Your task to perform on an android device: Open my contact list Image 0: 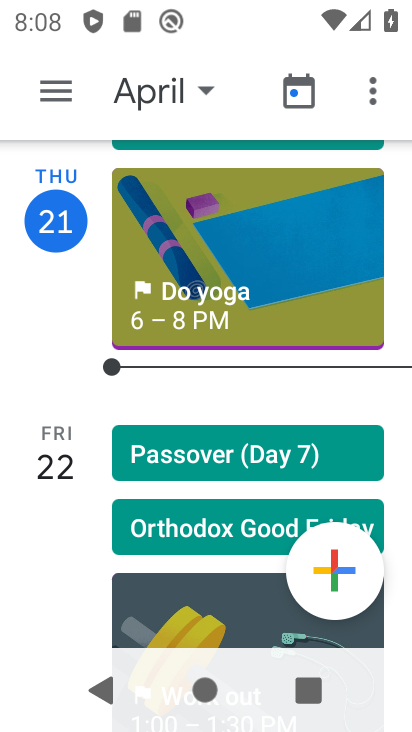
Step 0: press home button
Your task to perform on an android device: Open my contact list Image 1: 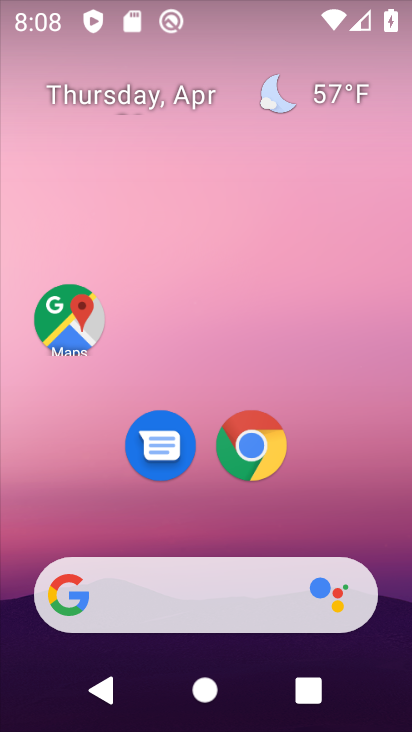
Step 1: drag from (339, 504) to (352, 18)
Your task to perform on an android device: Open my contact list Image 2: 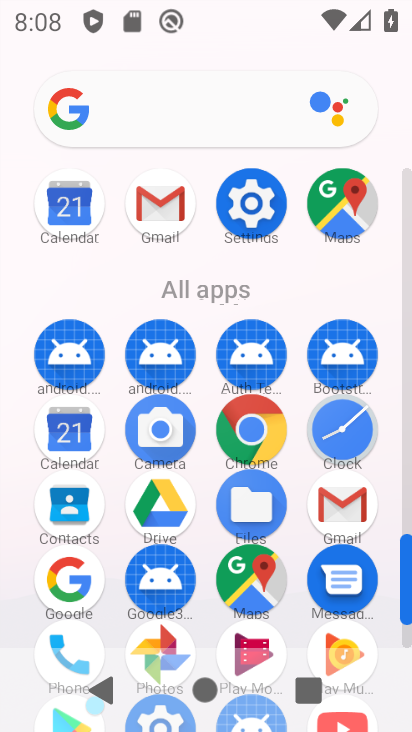
Step 2: click (67, 503)
Your task to perform on an android device: Open my contact list Image 3: 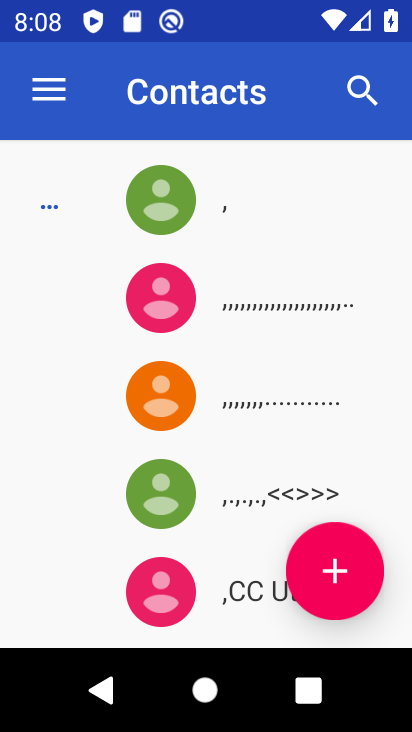
Step 3: task complete